Your task to perform on an android device: Show me the alarms in the clock app Image 0: 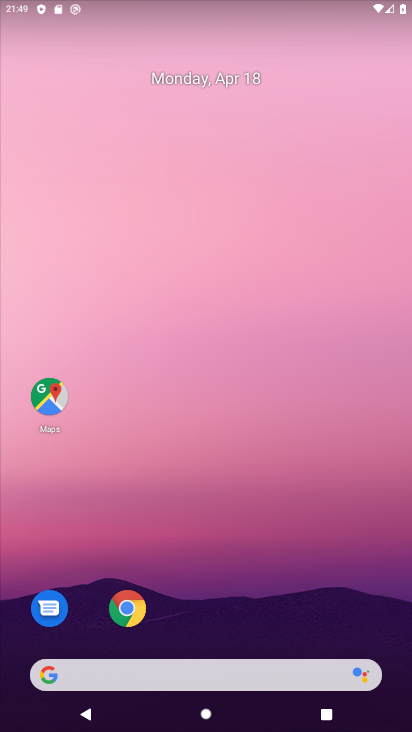
Step 0: click (207, 121)
Your task to perform on an android device: Show me the alarms in the clock app Image 1: 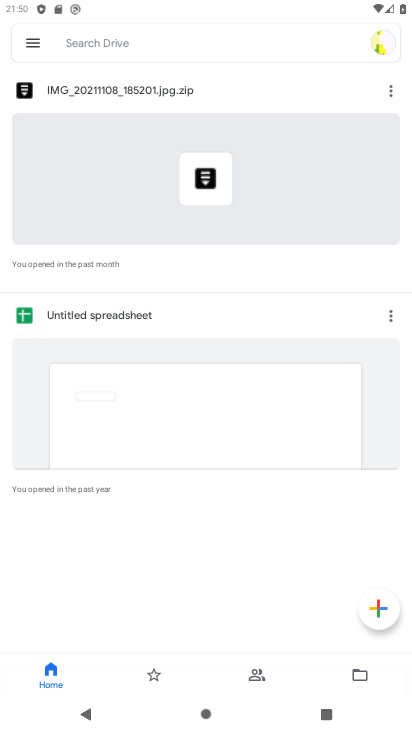
Step 1: press back button
Your task to perform on an android device: Show me the alarms in the clock app Image 2: 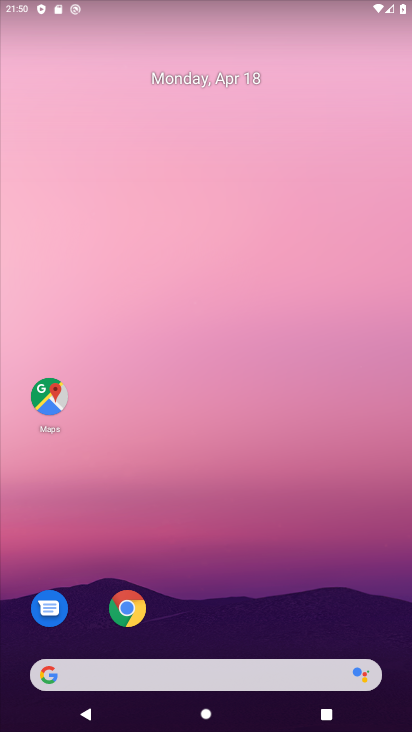
Step 2: drag from (242, 439) to (260, 152)
Your task to perform on an android device: Show me the alarms in the clock app Image 3: 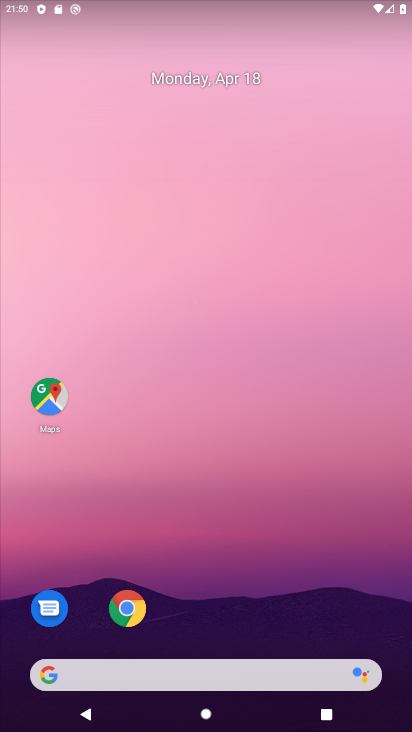
Step 3: drag from (198, 504) to (226, 30)
Your task to perform on an android device: Show me the alarms in the clock app Image 4: 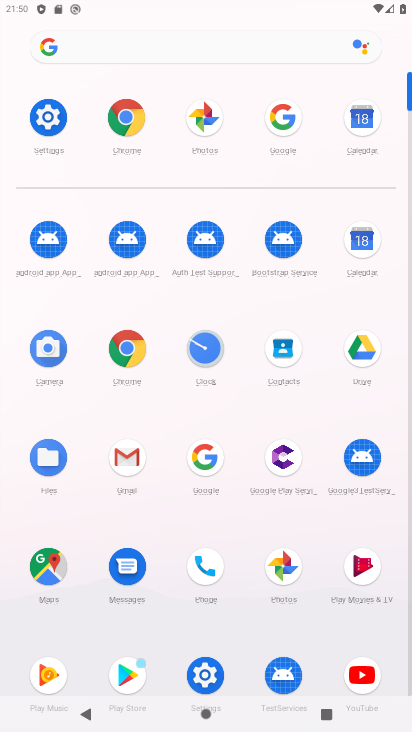
Step 4: click (206, 349)
Your task to perform on an android device: Show me the alarms in the clock app Image 5: 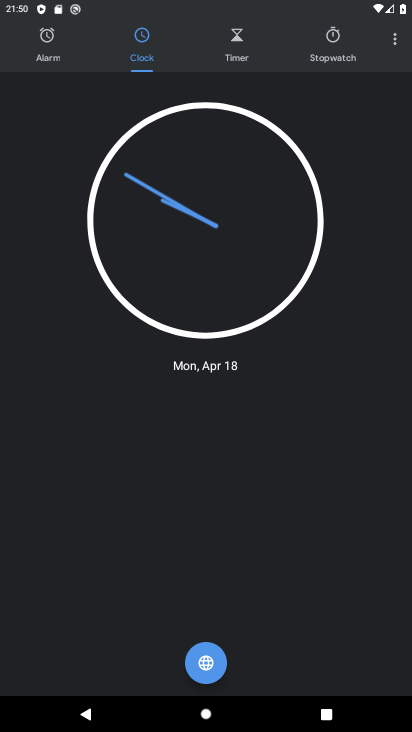
Step 5: click (51, 39)
Your task to perform on an android device: Show me the alarms in the clock app Image 6: 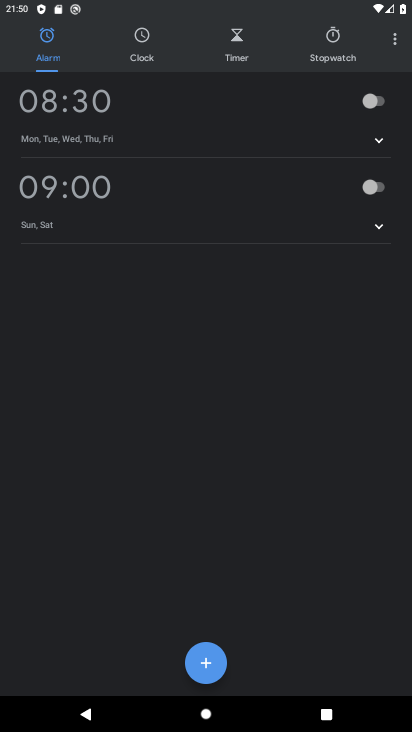
Step 6: task complete